Your task to perform on an android device: Open Youtube and go to the subscriptions tab Image 0: 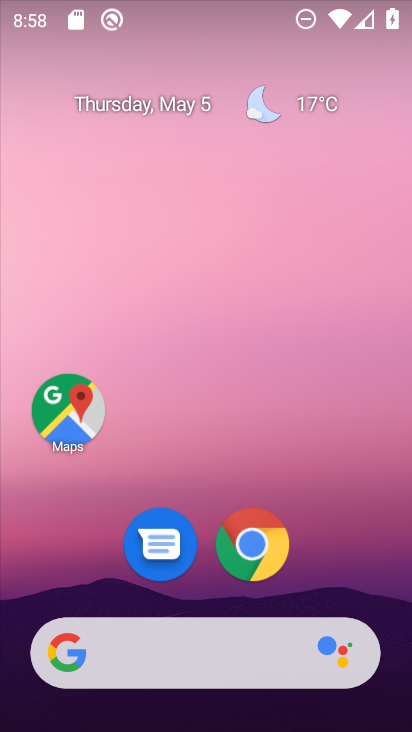
Step 0: drag from (384, 660) to (298, 23)
Your task to perform on an android device: Open Youtube and go to the subscriptions tab Image 1: 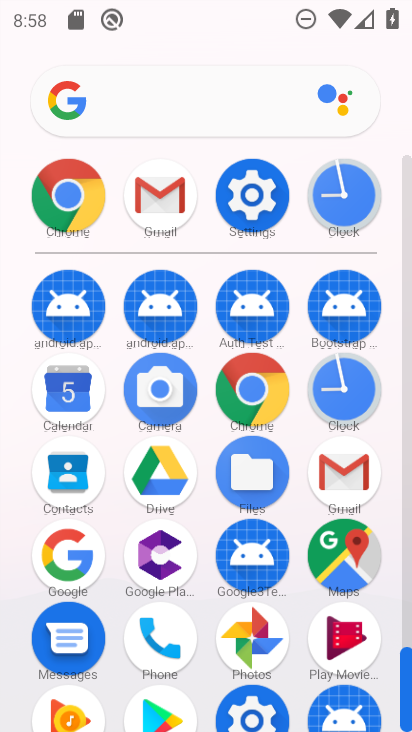
Step 1: drag from (110, 659) to (121, 147)
Your task to perform on an android device: Open Youtube and go to the subscriptions tab Image 2: 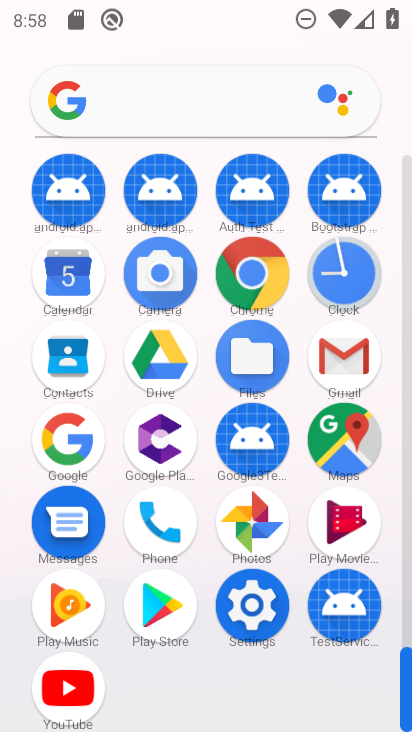
Step 2: click (69, 660)
Your task to perform on an android device: Open Youtube and go to the subscriptions tab Image 3: 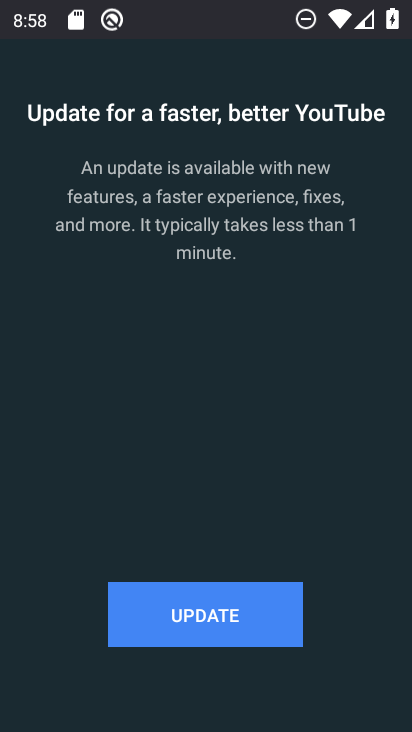
Step 3: click (211, 613)
Your task to perform on an android device: Open Youtube and go to the subscriptions tab Image 4: 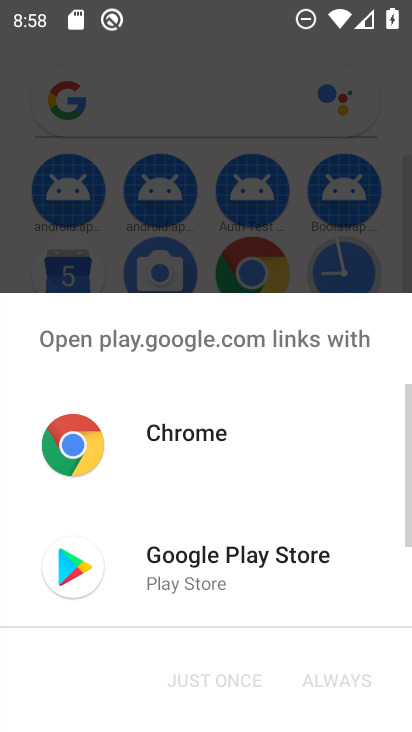
Step 4: click (222, 577)
Your task to perform on an android device: Open Youtube and go to the subscriptions tab Image 5: 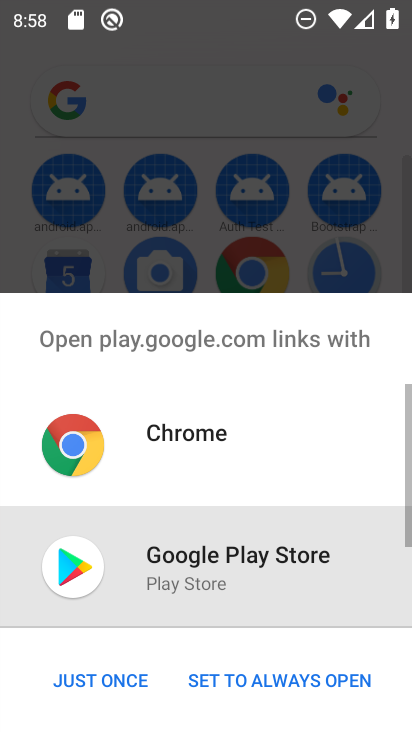
Step 5: click (140, 671)
Your task to perform on an android device: Open Youtube and go to the subscriptions tab Image 6: 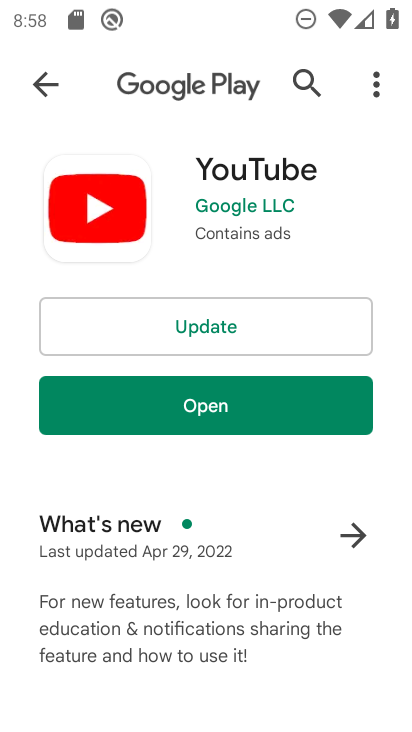
Step 6: click (238, 327)
Your task to perform on an android device: Open Youtube and go to the subscriptions tab Image 7: 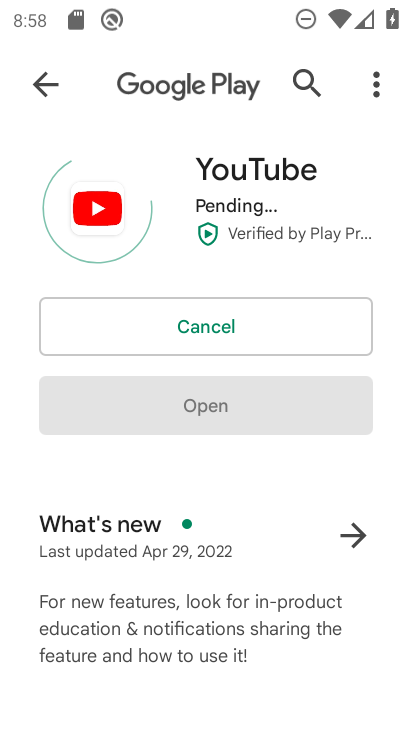
Step 7: click (238, 327)
Your task to perform on an android device: Open Youtube and go to the subscriptions tab Image 8: 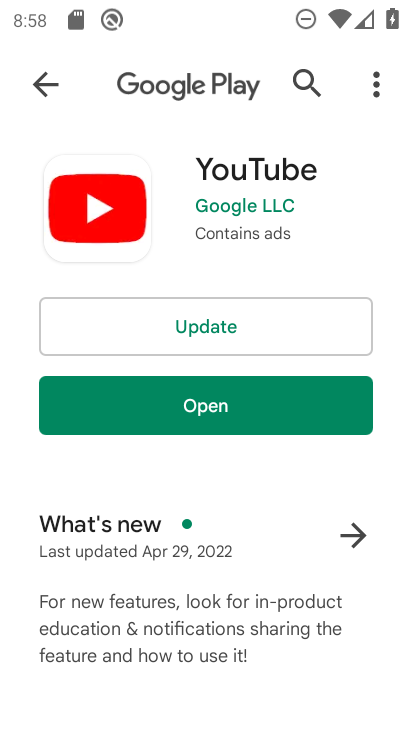
Step 8: click (238, 327)
Your task to perform on an android device: Open Youtube and go to the subscriptions tab Image 9: 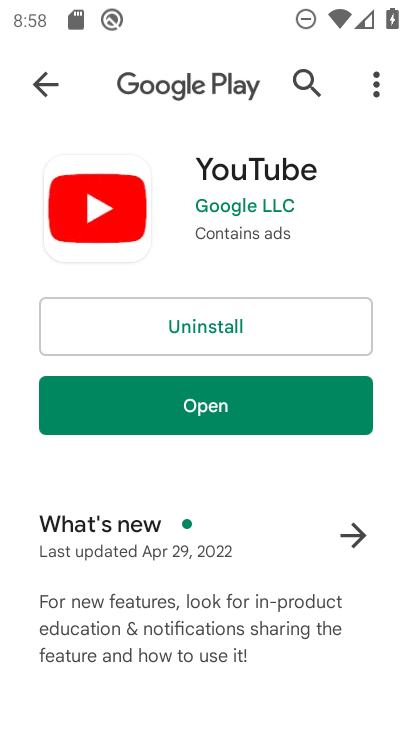
Step 9: click (241, 404)
Your task to perform on an android device: Open Youtube and go to the subscriptions tab Image 10: 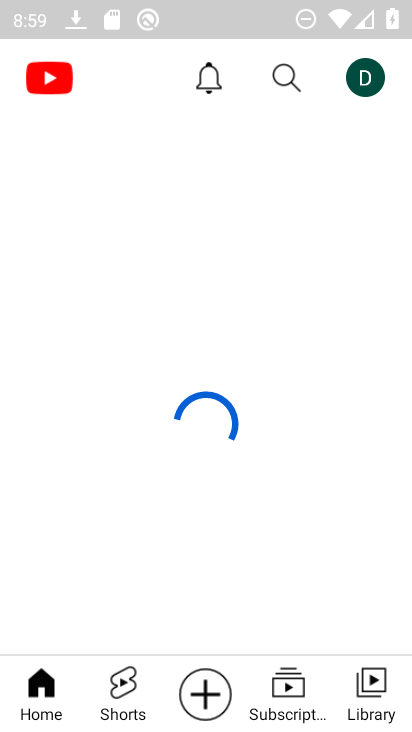
Step 10: click (296, 694)
Your task to perform on an android device: Open Youtube and go to the subscriptions tab Image 11: 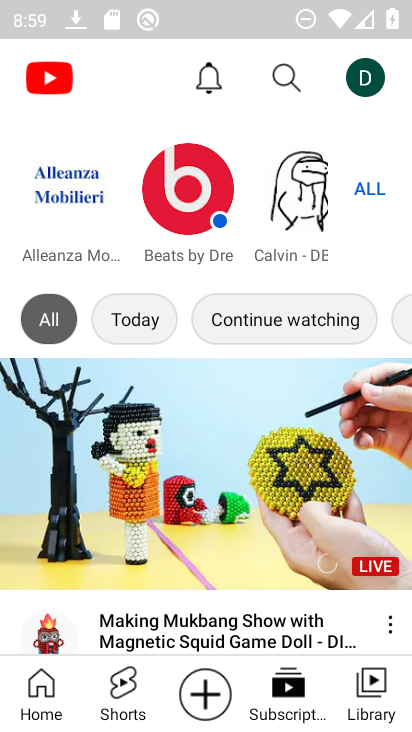
Step 11: task complete